Your task to perform on an android device: turn on location history Image 0: 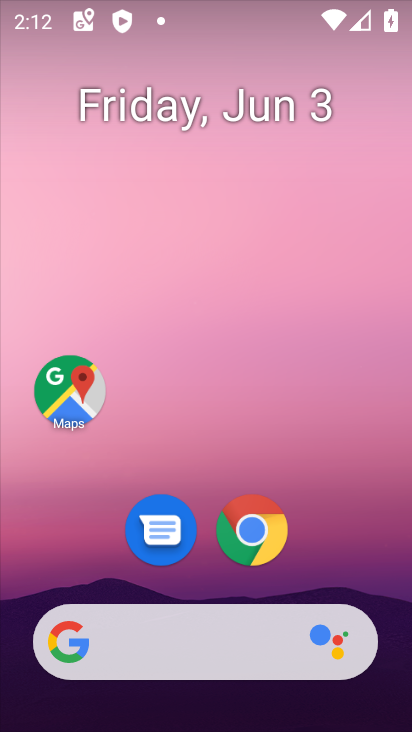
Step 0: drag from (258, 437) to (200, 115)
Your task to perform on an android device: turn on location history Image 1: 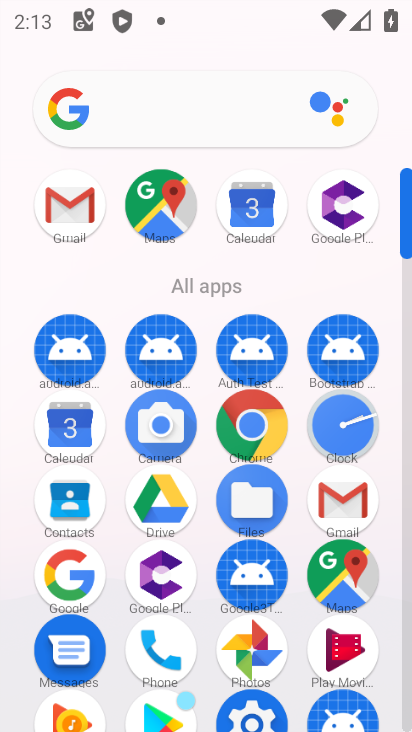
Step 1: click (173, 212)
Your task to perform on an android device: turn on location history Image 2: 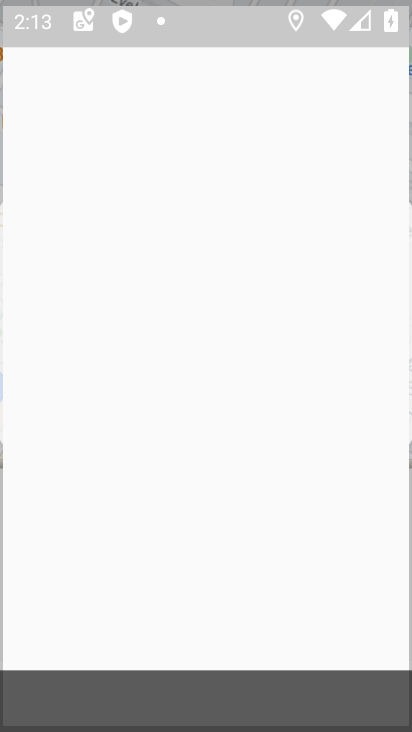
Step 2: click (269, 93)
Your task to perform on an android device: turn on location history Image 3: 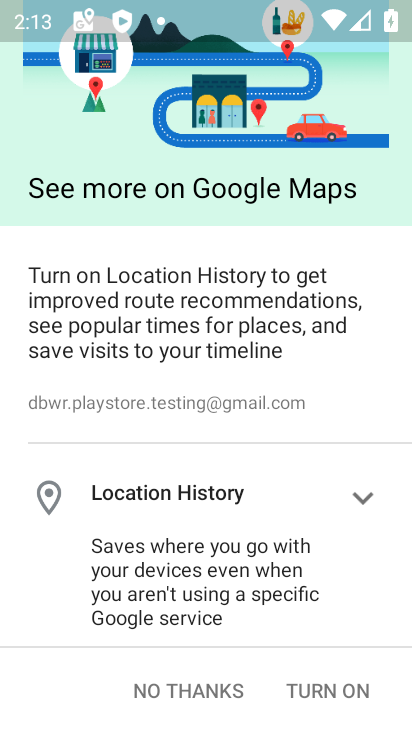
Step 3: click (309, 694)
Your task to perform on an android device: turn on location history Image 4: 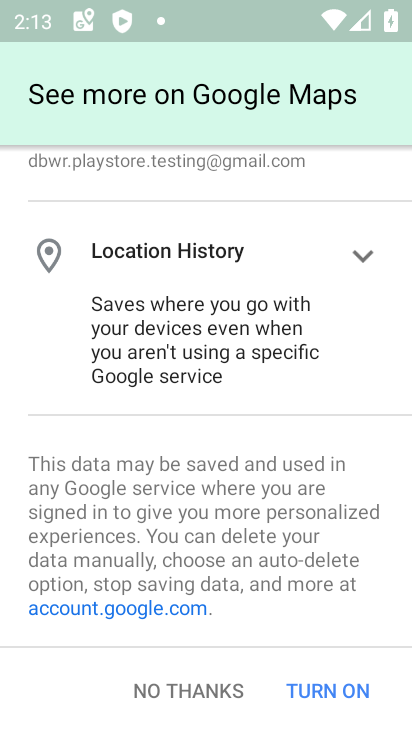
Step 4: click (321, 688)
Your task to perform on an android device: turn on location history Image 5: 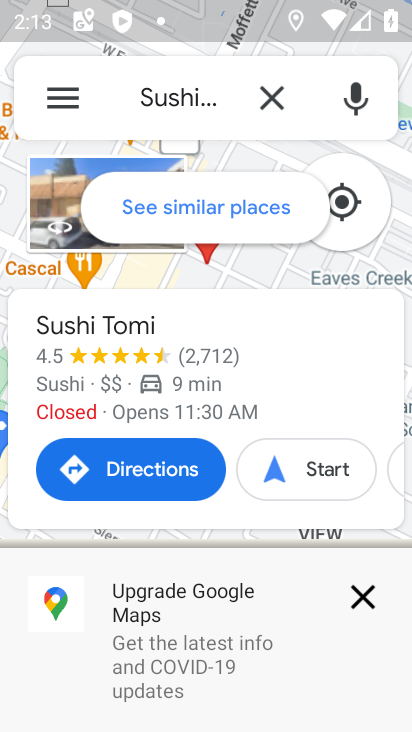
Step 5: task complete